Your task to perform on an android device: What is the news today? Image 0: 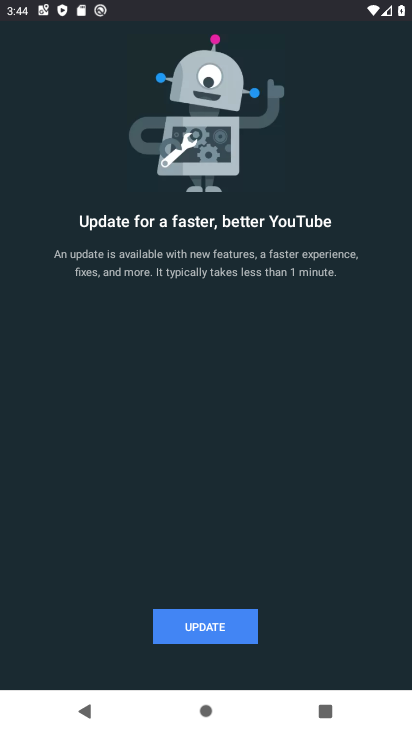
Step 0: press home button
Your task to perform on an android device: What is the news today? Image 1: 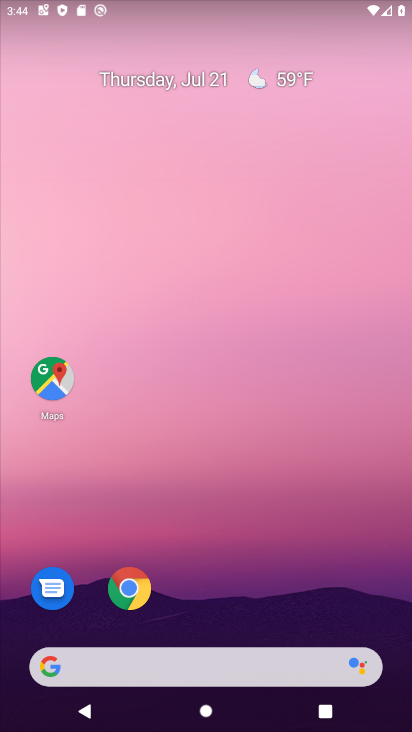
Step 1: drag from (262, 617) to (271, 89)
Your task to perform on an android device: What is the news today? Image 2: 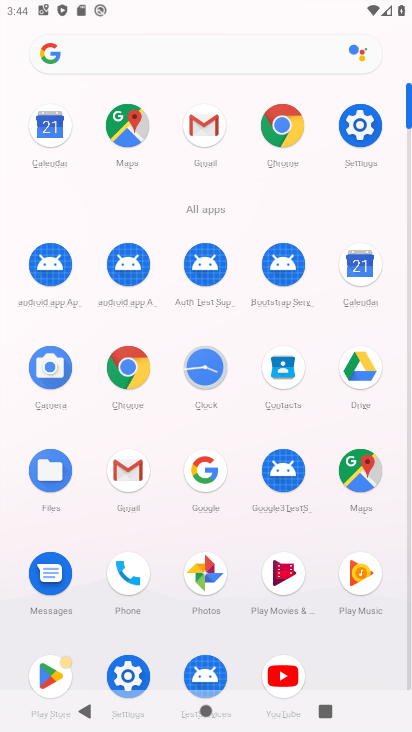
Step 2: click (233, 59)
Your task to perform on an android device: What is the news today? Image 3: 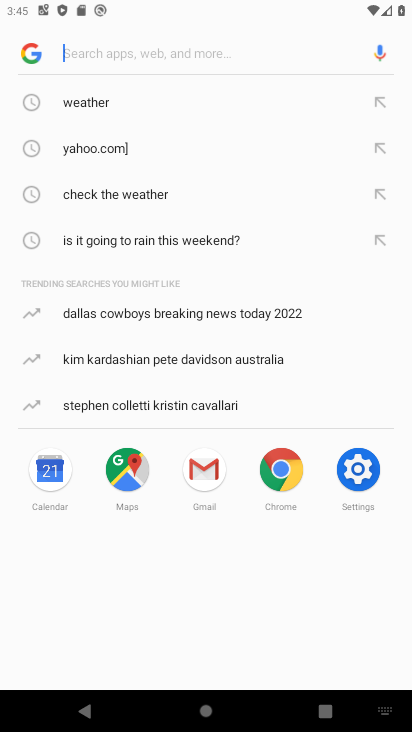
Step 3: type "news today ?"
Your task to perform on an android device: What is the news today? Image 4: 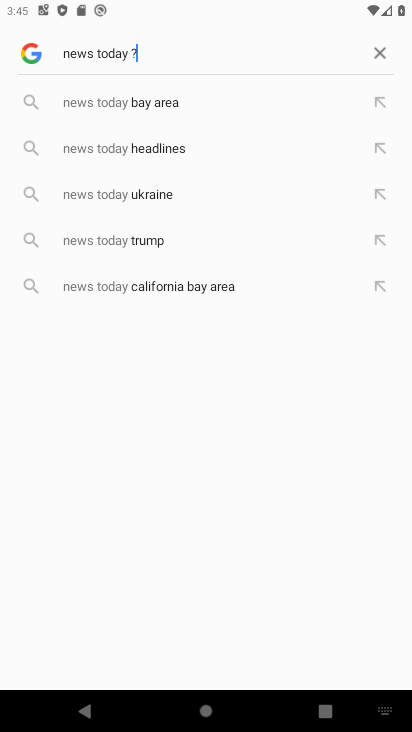
Step 4: click (106, 245)
Your task to perform on an android device: What is the news today? Image 5: 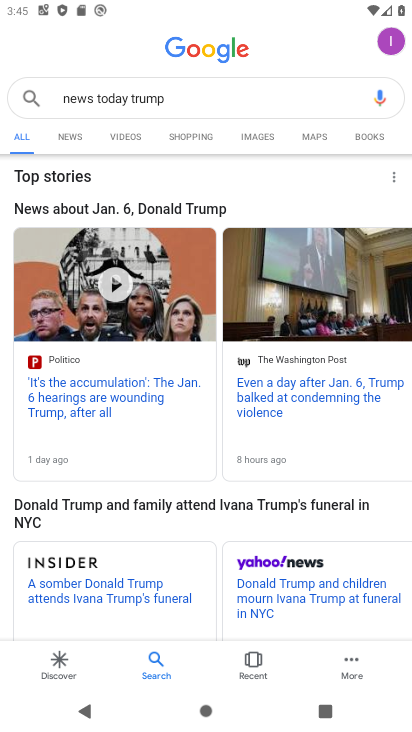
Step 5: task complete